Your task to perform on an android device: Open wifi settings Image 0: 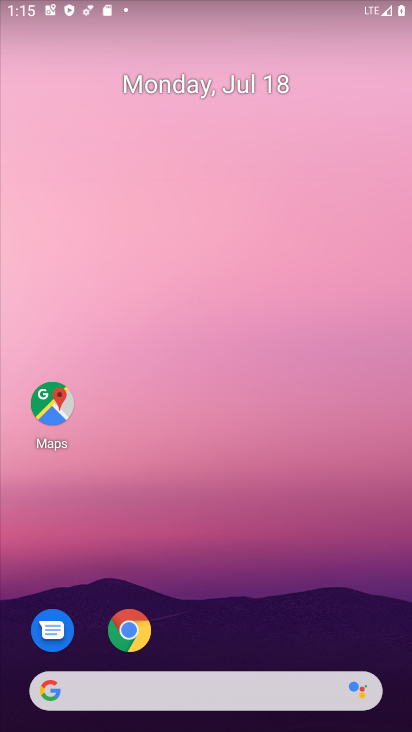
Step 0: drag from (231, 572) to (188, 26)
Your task to perform on an android device: Open wifi settings Image 1: 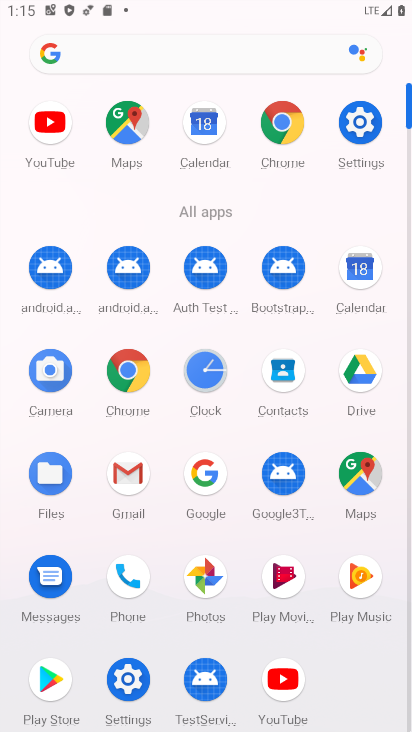
Step 1: click (353, 121)
Your task to perform on an android device: Open wifi settings Image 2: 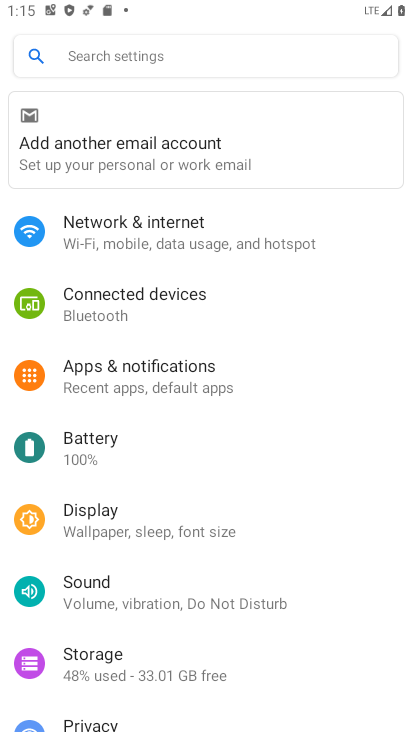
Step 2: click (242, 234)
Your task to perform on an android device: Open wifi settings Image 3: 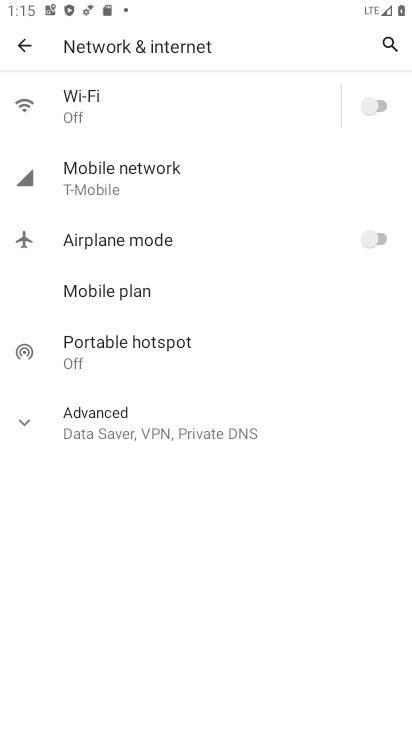
Step 3: click (116, 106)
Your task to perform on an android device: Open wifi settings Image 4: 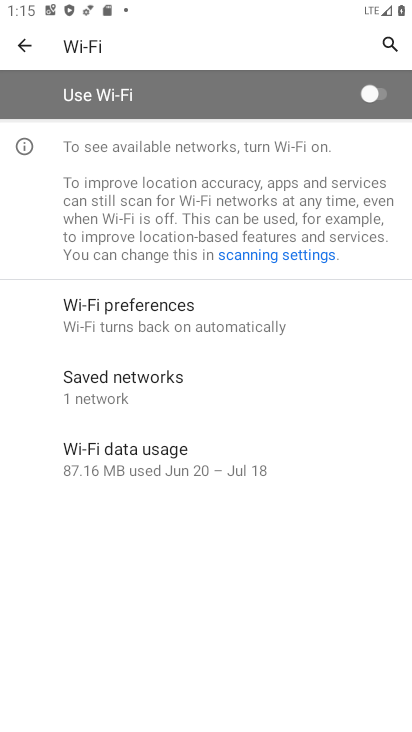
Step 4: task complete